Your task to perform on an android device: check the backup settings in the google photos Image 0: 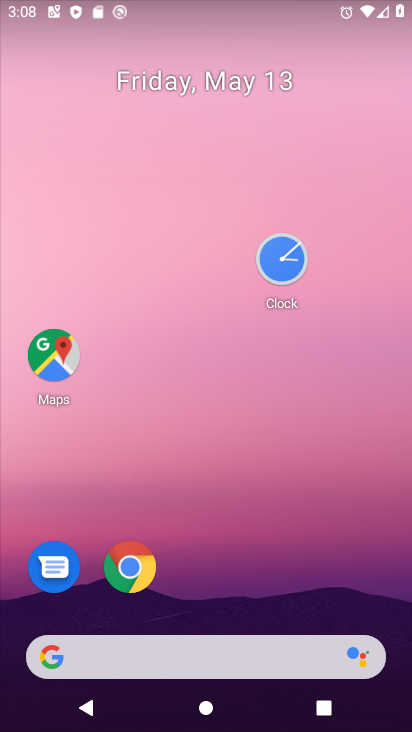
Step 0: drag from (259, 576) to (215, 174)
Your task to perform on an android device: check the backup settings in the google photos Image 1: 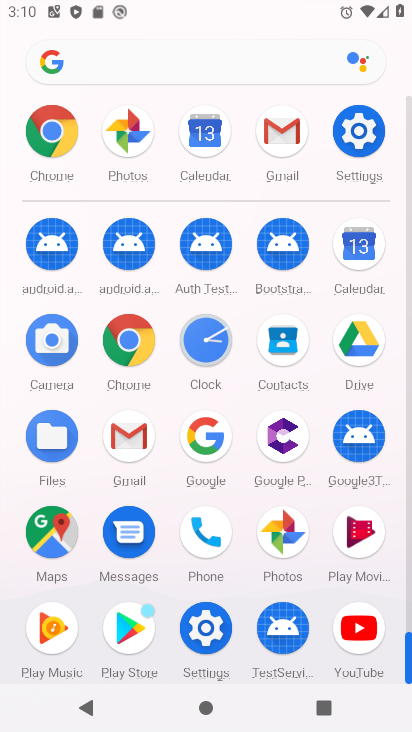
Step 1: click (273, 546)
Your task to perform on an android device: check the backup settings in the google photos Image 2: 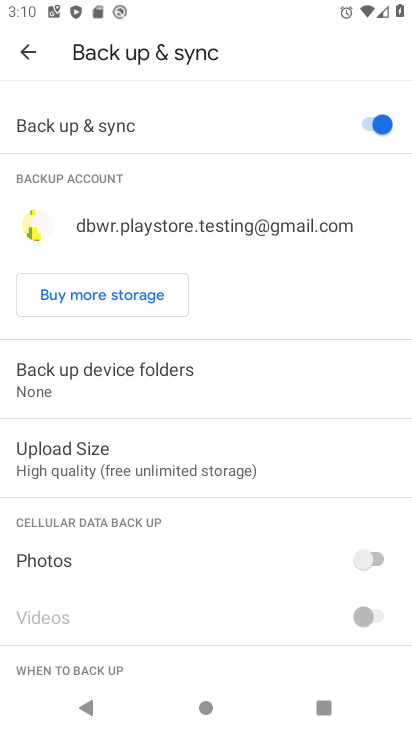
Step 2: click (161, 217)
Your task to perform on an android device: check the backup settings in the google photos Image 3: 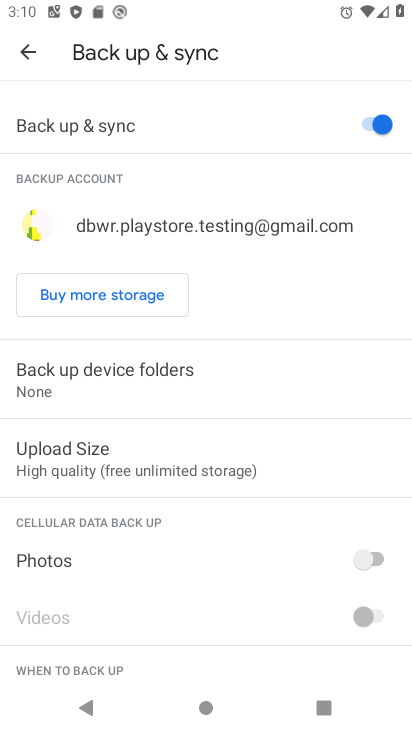
Step 3: task complete